Your task to perform on an android device: turn on bluetooth scan Image 0: 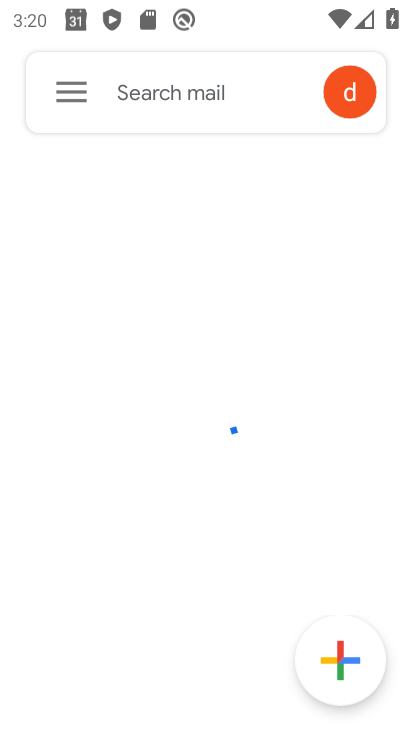
Step 0: press home button
Your task to perform on an android device: turn on bluetooth scan Image 1: 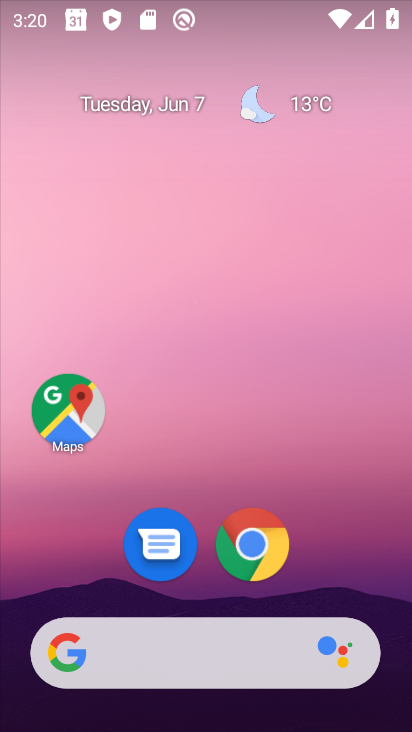
Step 1: drag from (219, 602) to (236, 17)
Your task to perform on an android device: turn on bluetooth scan Image 2: 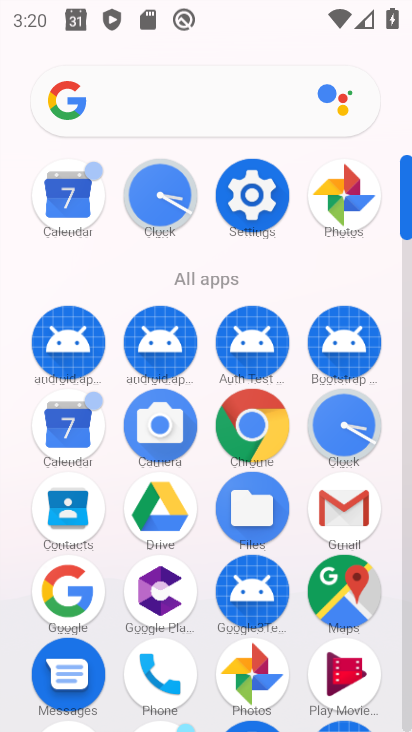
Step 2: click (252, 188)
Your task to perform on an android device: turn on bluetooth scan Image 3: 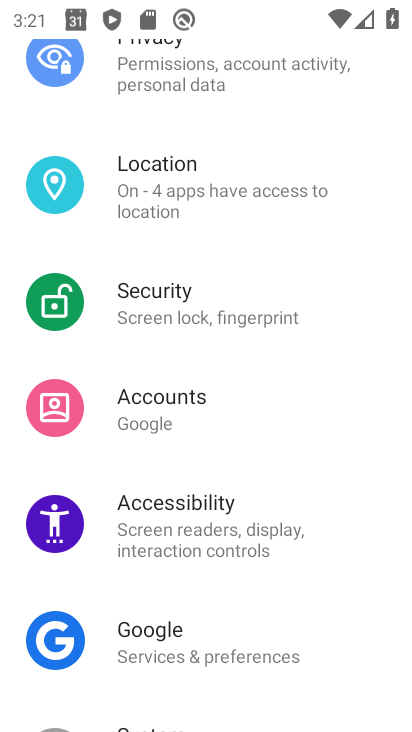
Step 3: click (227, 180)
Your task to perform on an android device: turn on bluetooth scan Image 4: 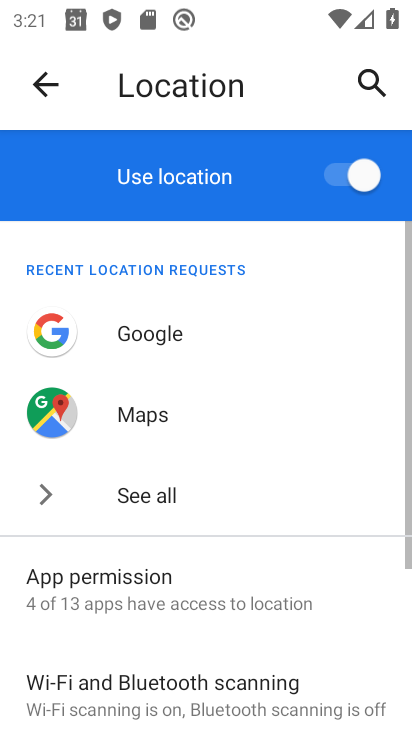
Step 4: click (189, 690)
Your task to perform on an android device: turn on bluetooth scan Image 5: 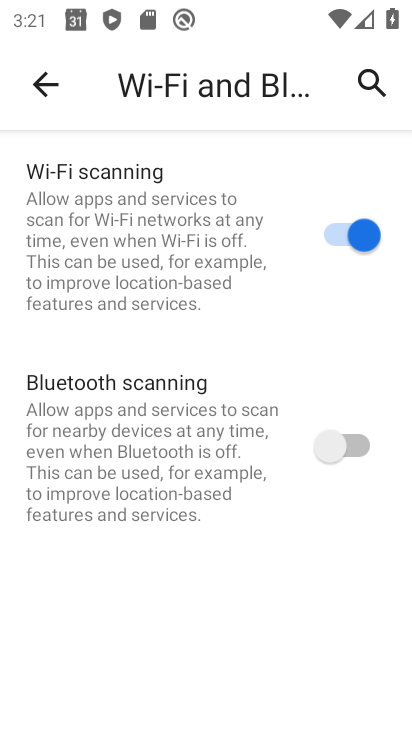
Step 5: click (353, 433)
Your task to perform on an android device: turn on bluetooth scan Image 6: 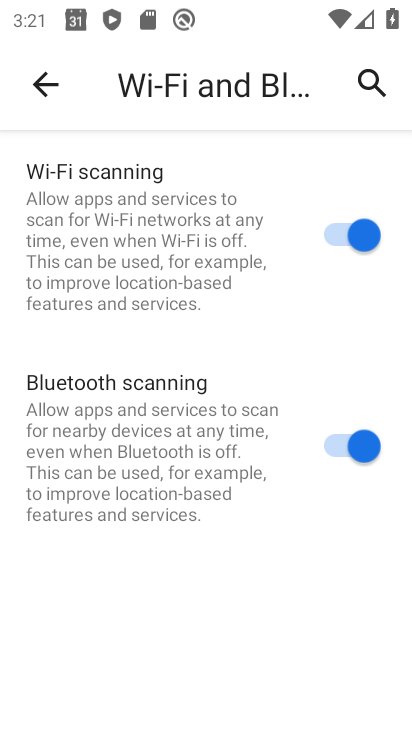
Step 6: task complete